Your task to perform on an android device: Do I have any events tomorrow? Image 0: 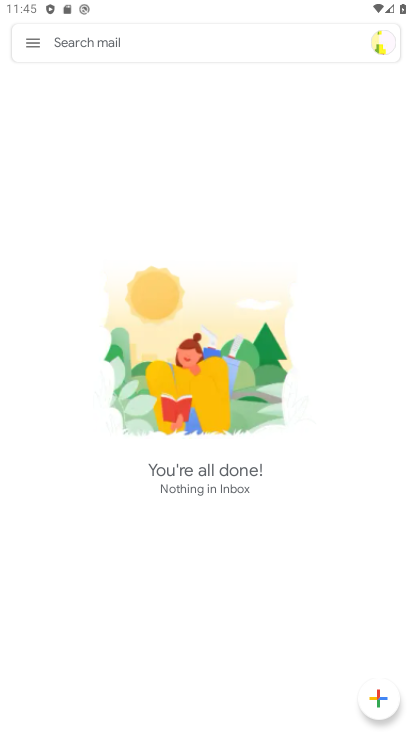
Step 0: press home button
Your task to perform on an android device: Do I have any events tomorrow? Image 1: 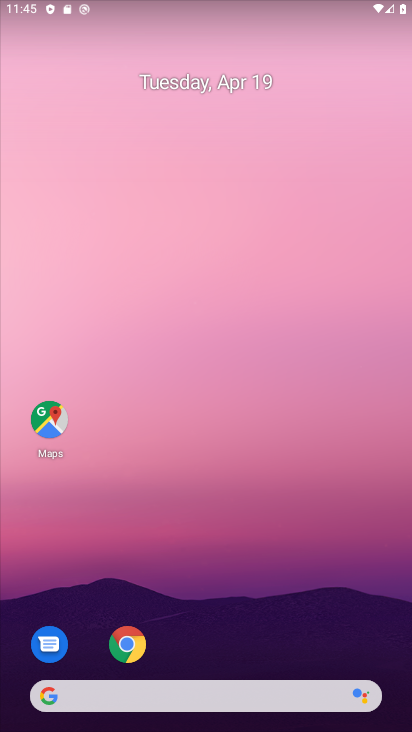
Step 1: drag from (237, 552) to (269, 120)
Your task to perform on an android device: Do I have any events tomorrow? Image 2: 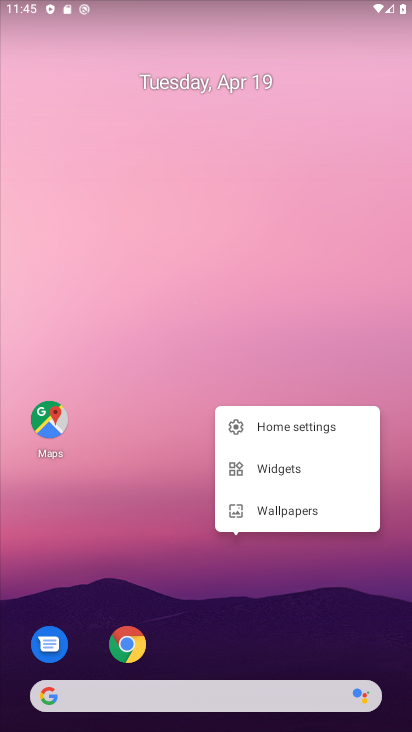
Step 2: drag from (167, 535) to (207, 69)
Your task to perform on an android device: Do I have any events tomorrow? Image 3: 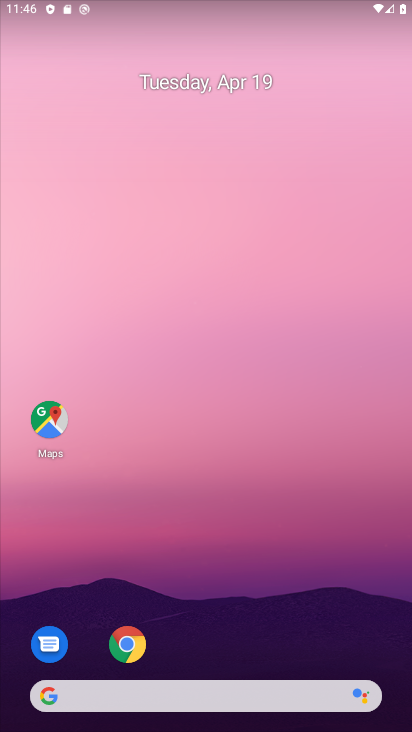
Step 3: drag from (250, 633) to (278, 11)
Your task to perform on an android device: Do I have any events tomorrow? Image 4: 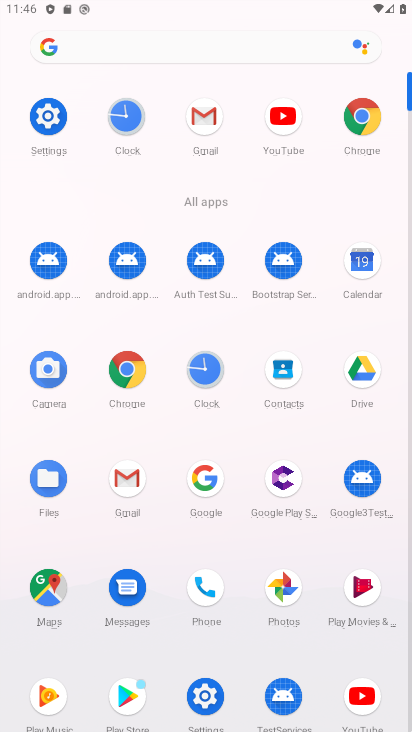
Step 4: click (359, 255)
Your task to perform on an android device: Do I have any events tomorrow? Image 5: 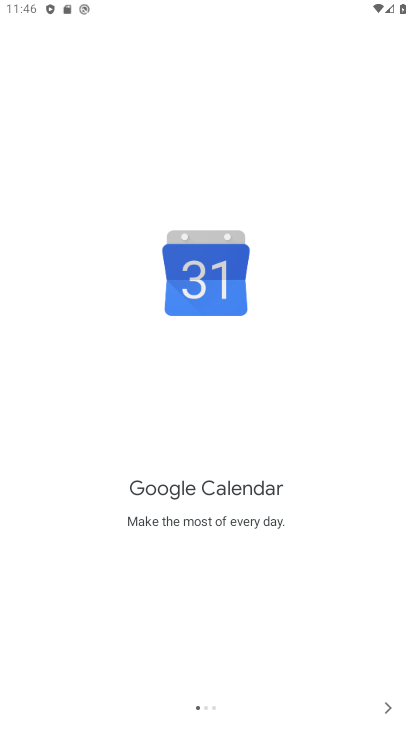
Step 5: click (390, 707)
Your task to perform on an android device: Do I have any events tomorrow? Image 6: 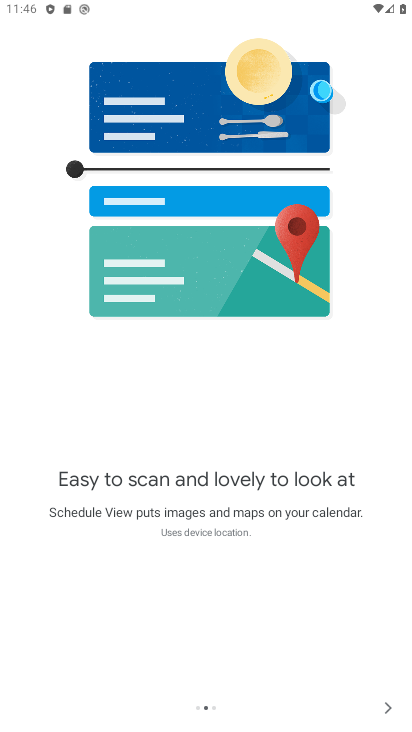
Step 6: click (390, 707)
Your task to perform on an android device: Do I have any events tomorrow? Image 7: 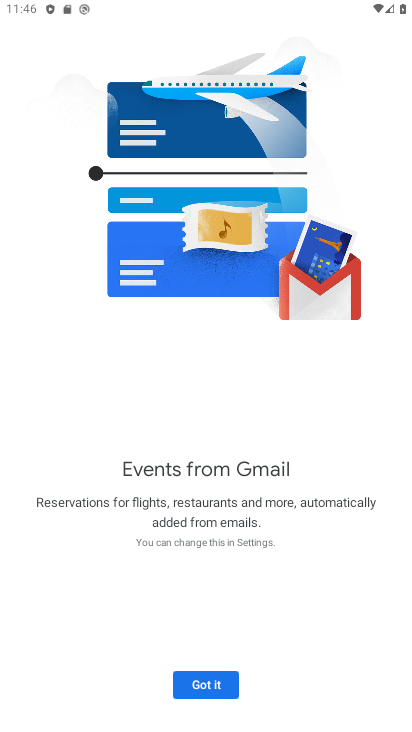
Step 7: click (214, 674)
Your task to perform on an android device: Do I have any events tomorrow? Image 8: 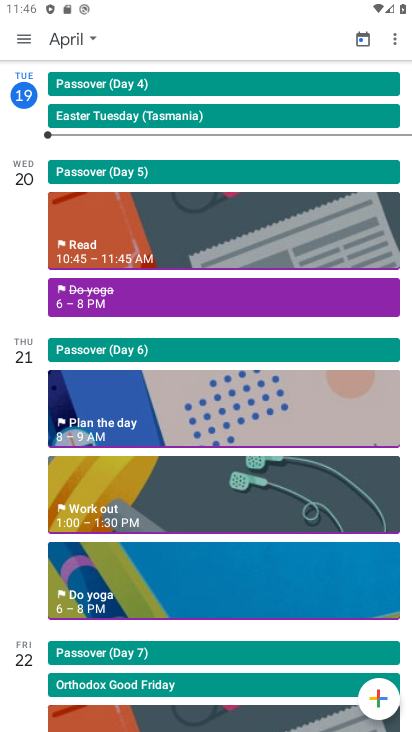
Step 8: click (262, 232)
Your task to perform on an android device: Do I have any events tomorrow? Image 9: 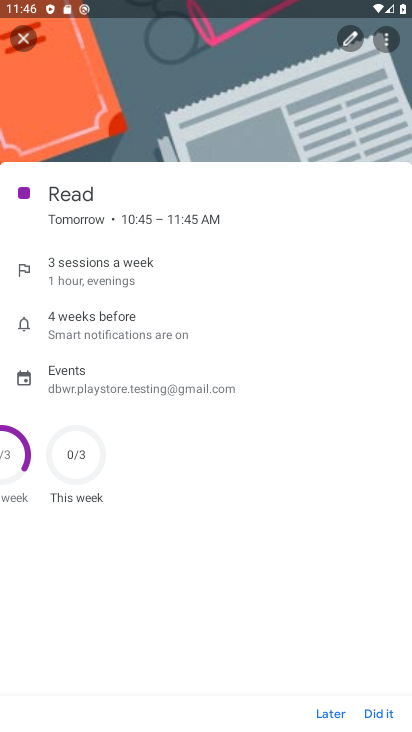
Step 9: task complete